Your task to perform on an android device: Go to privacy settings Image 0: 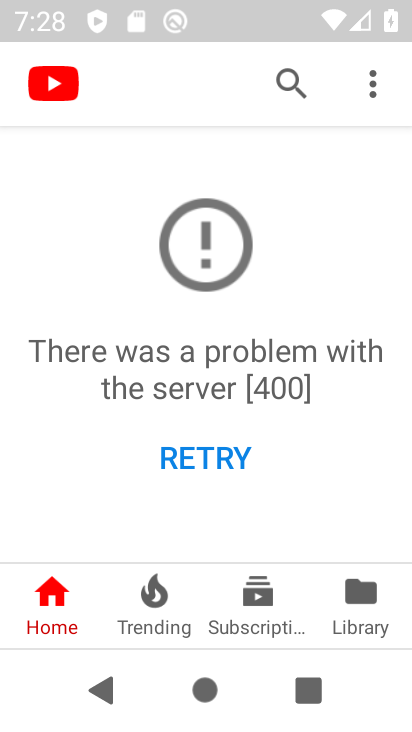
Step 0: press home button
Your task to perform on an android device: Go to privacy settings Image 1: 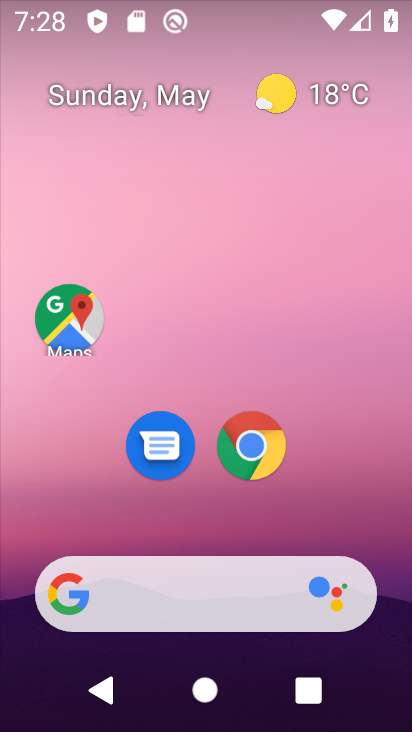
Step 1: drag from (258, 625) to (242, 206)
Your task to perform on an android device: Go to privacy settings Image 2: 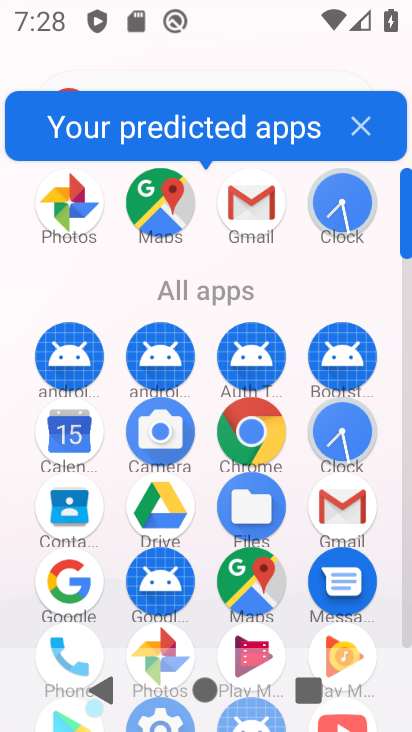
Step 2: drag from (301, 588) to (299, 380)
Your task to perform on an android device: Go to privacy settings Image 3: 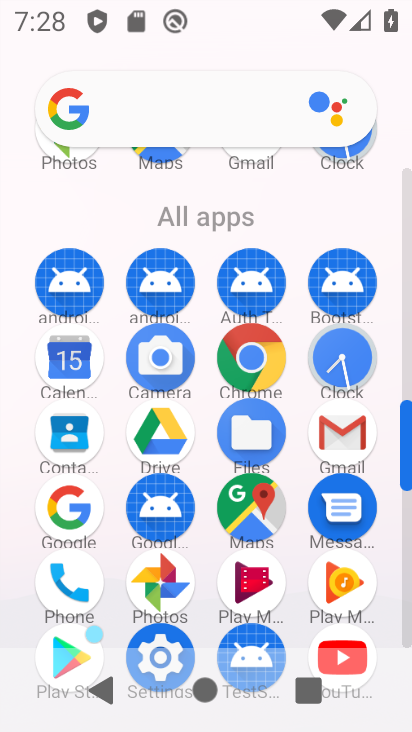
Step 3: click (176, 636)
Your task to perform on an android device: Go to privacy settings Image 4: 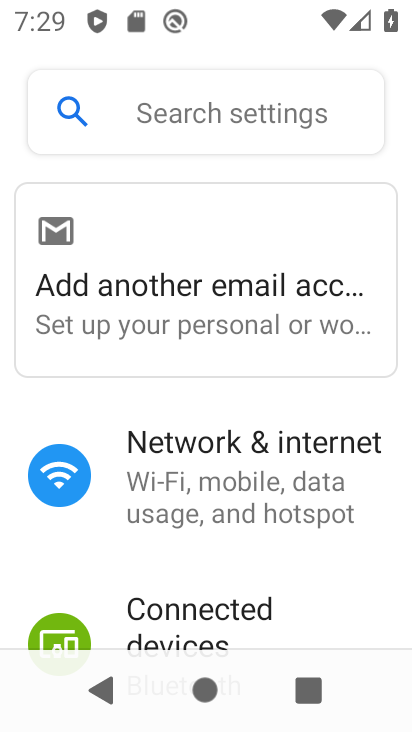
Step 4: task complete